Your task to perform on an android device: add a label to a message in the gmail app Image 0: 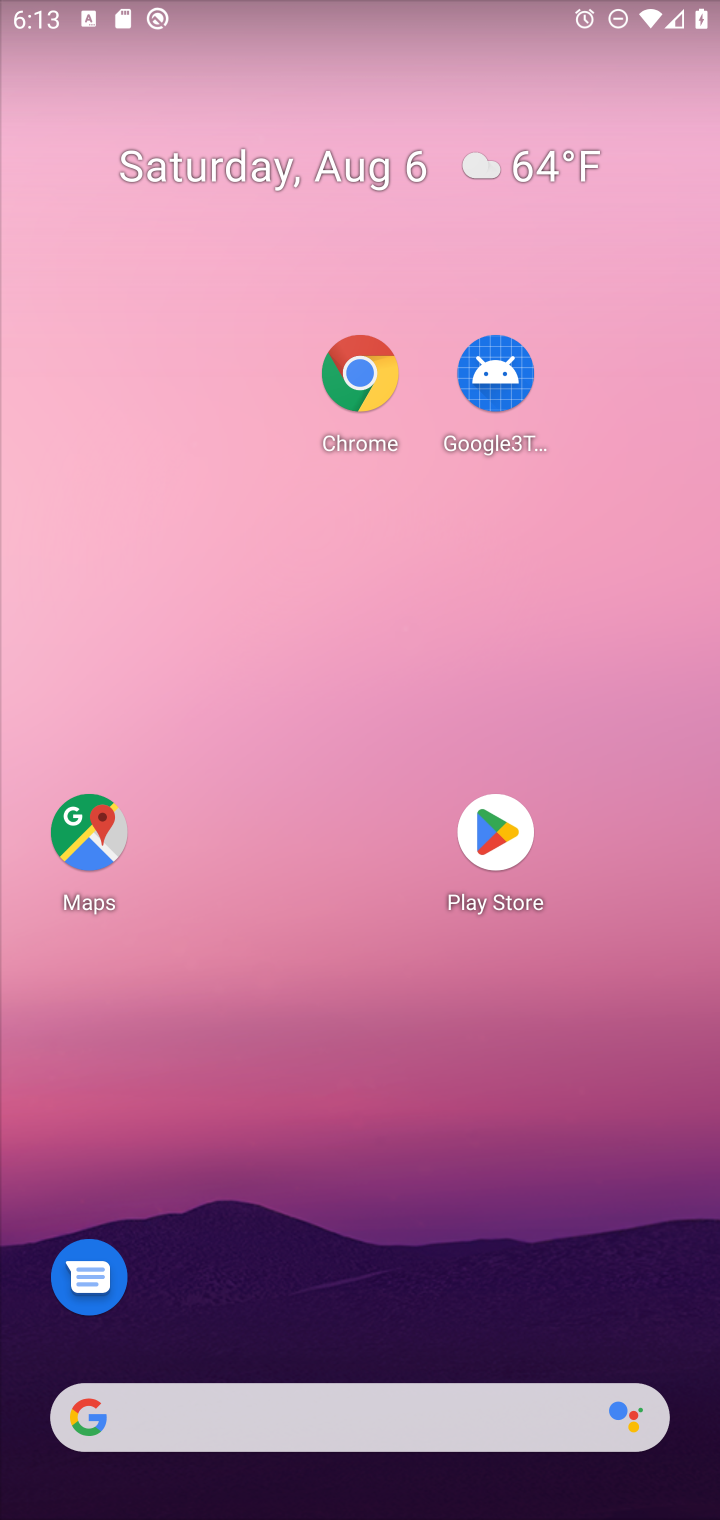
Step 0: drag from (340, 1422) to (102, 46)
Your task to perform on an android device: add a label to a message in the gmail app Image 1: 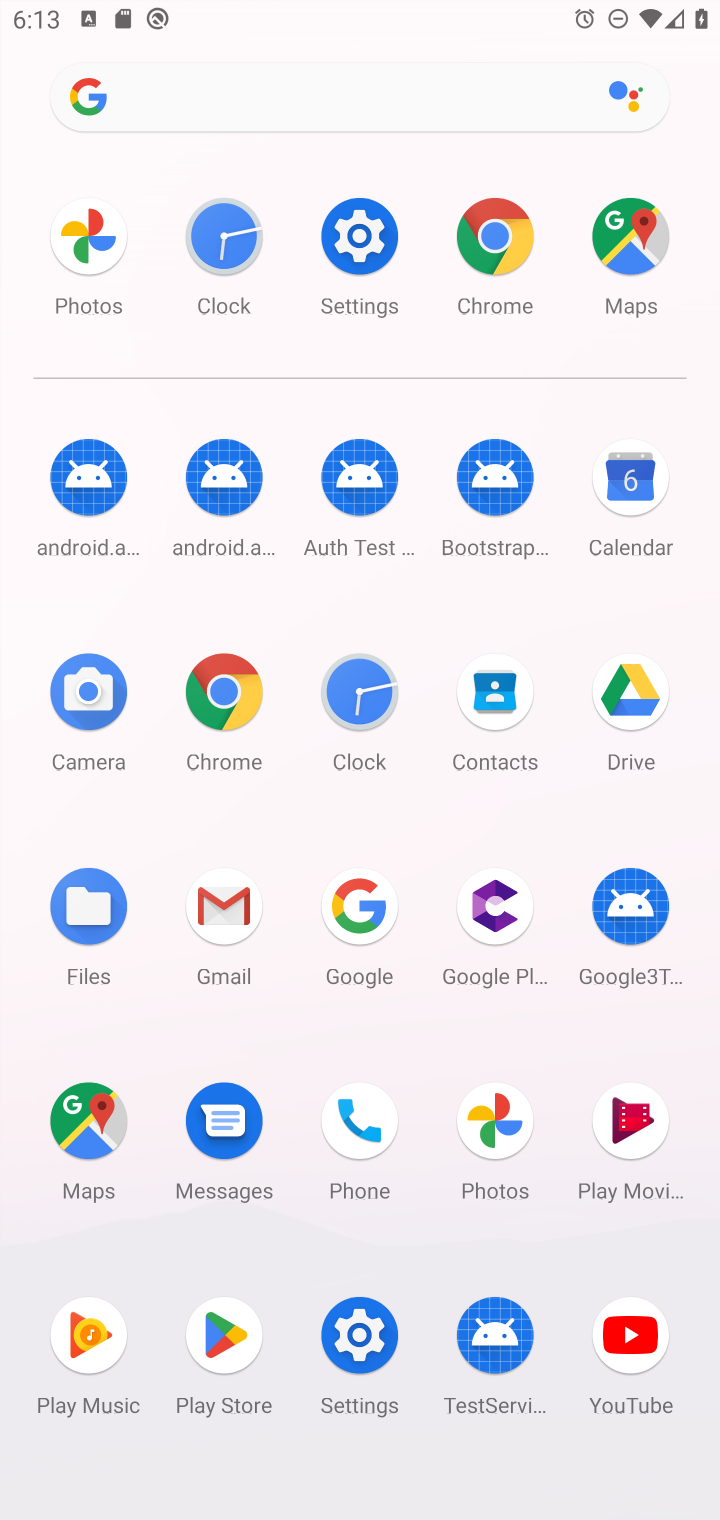
Step 1: click (224, 909)
Your task to perform on an android device: add a label to a message in the gmail app Image 2: 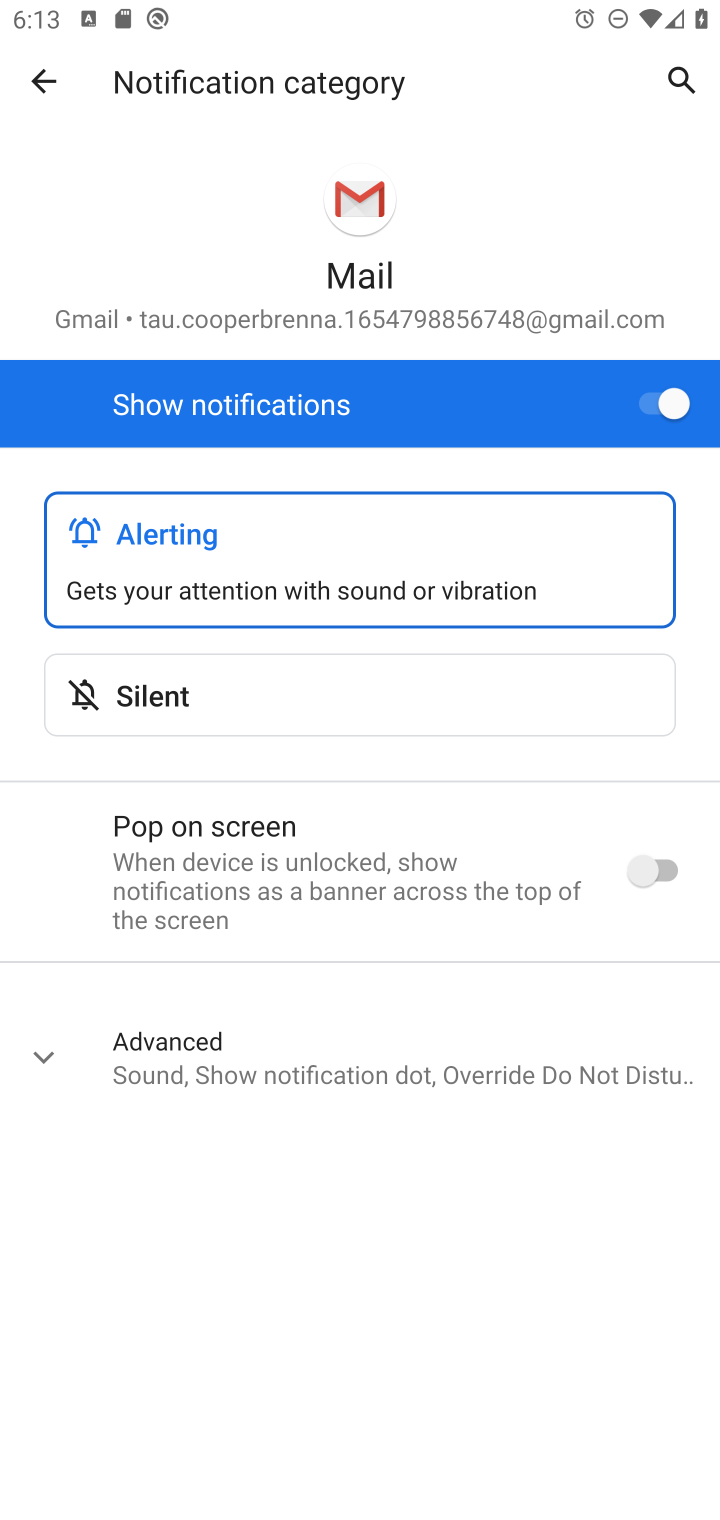
Step 2: press back button
Your task to perform on an android device: add a label to a message in the gmail app Image 3: 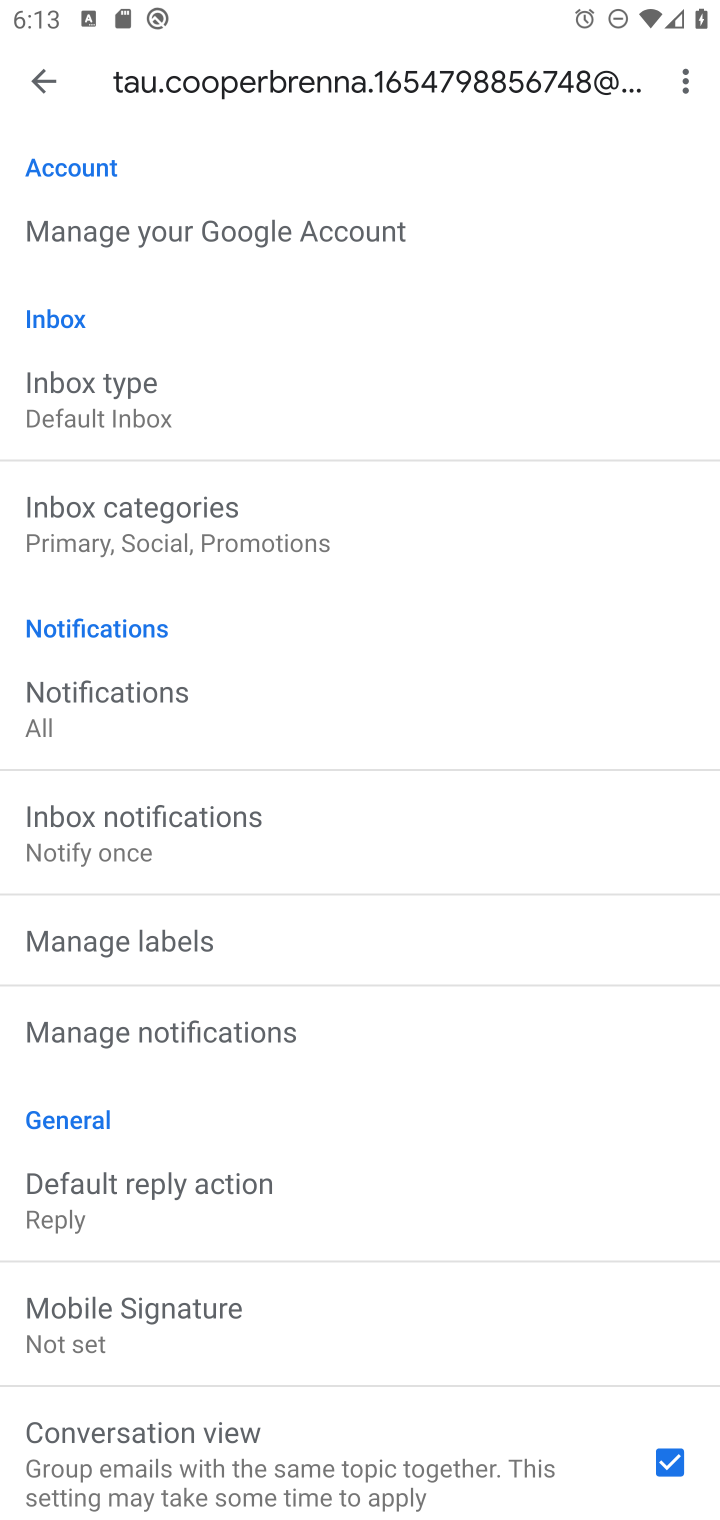
Step 3: press back button
Your task to perform on an android device: add a label to a message in the gmail app Image 4: 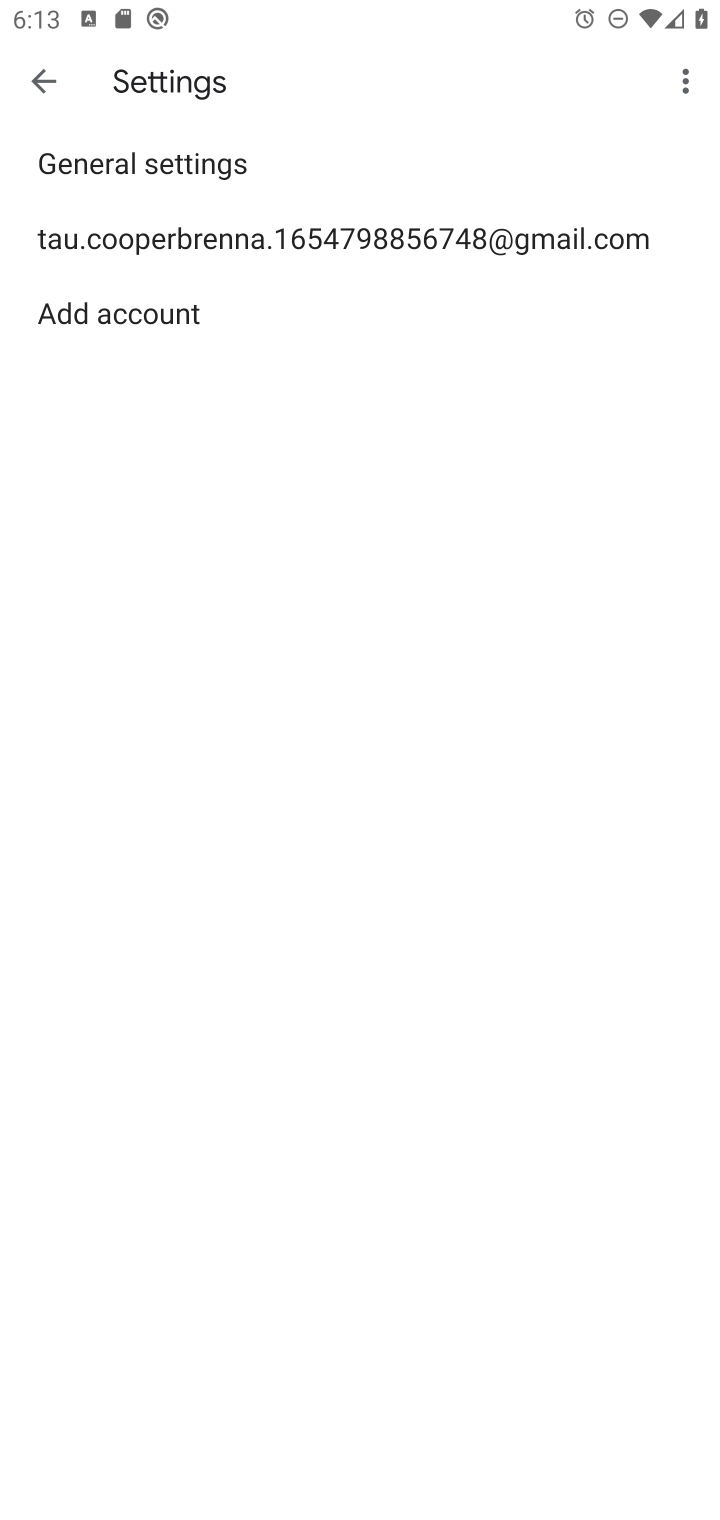
Step 4: press back button
Your task to perform on an android device: add a label to a message in the gmail app Image 5: 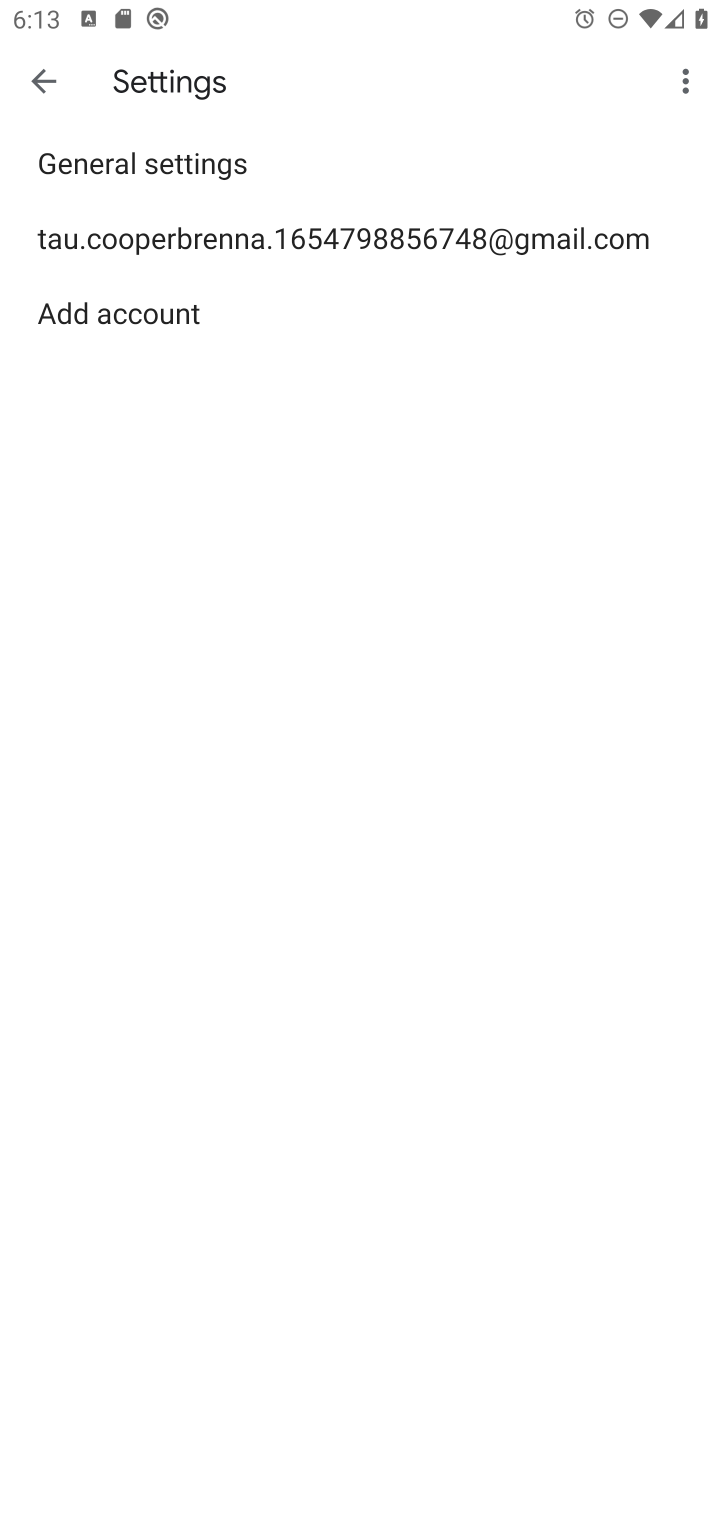
Step 5: press back button
Your task to perform on an android device: add a label to a message in the gmail app Image 6: 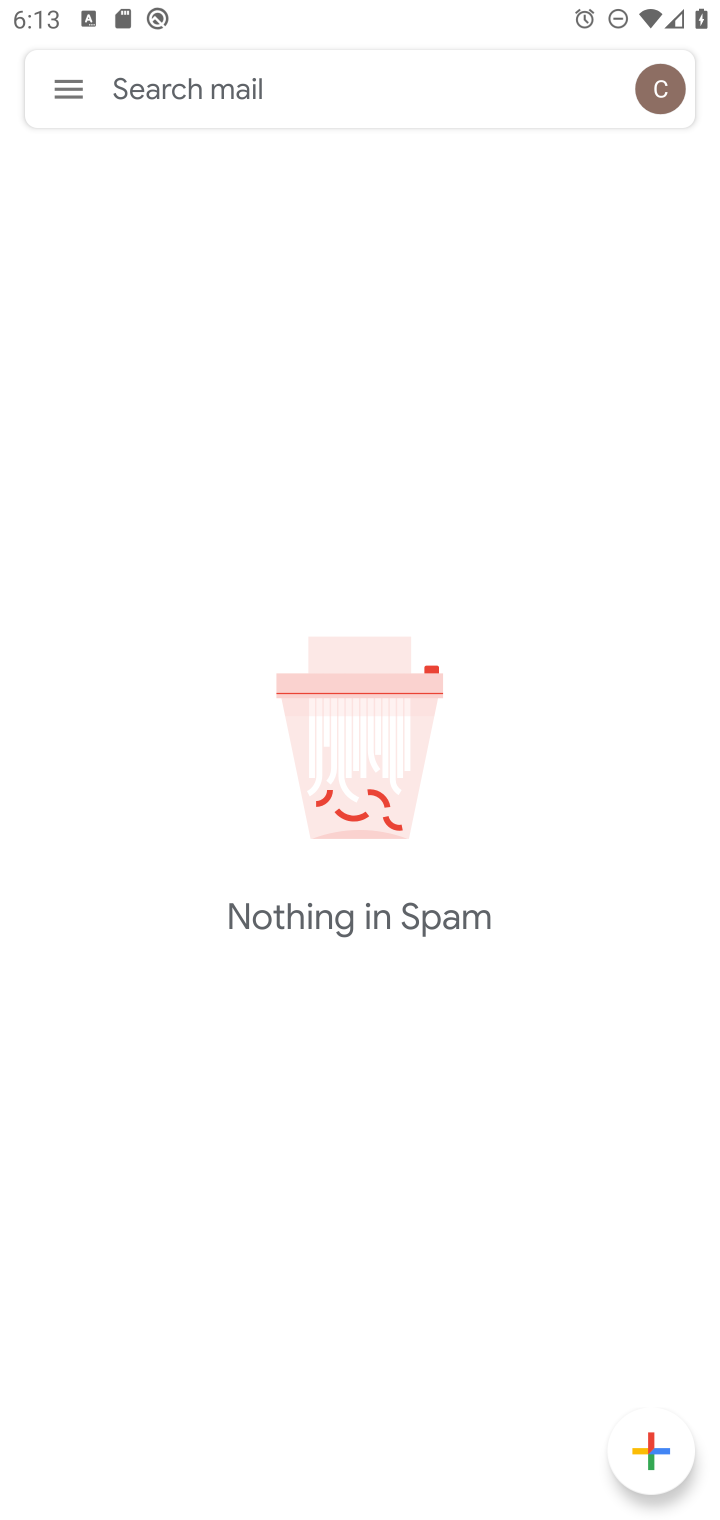
Step 6: click (57, 102)
Your task to perform on an android device: add a label to a message in the gmail app Image 7: 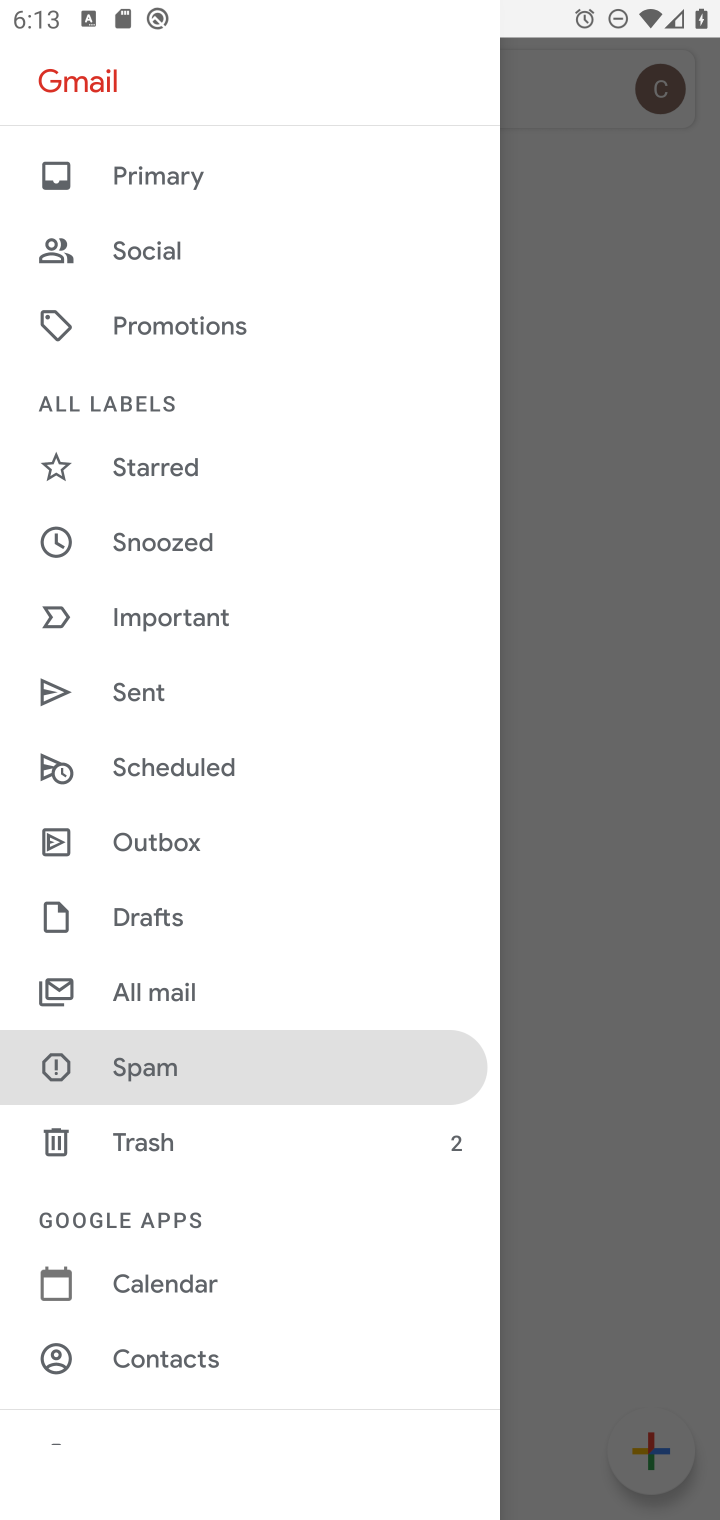
Step 7: drag from (285, 342) to (273, 709)
Your task to perform on an android device: add a label to a message in the gmail app Image 8: 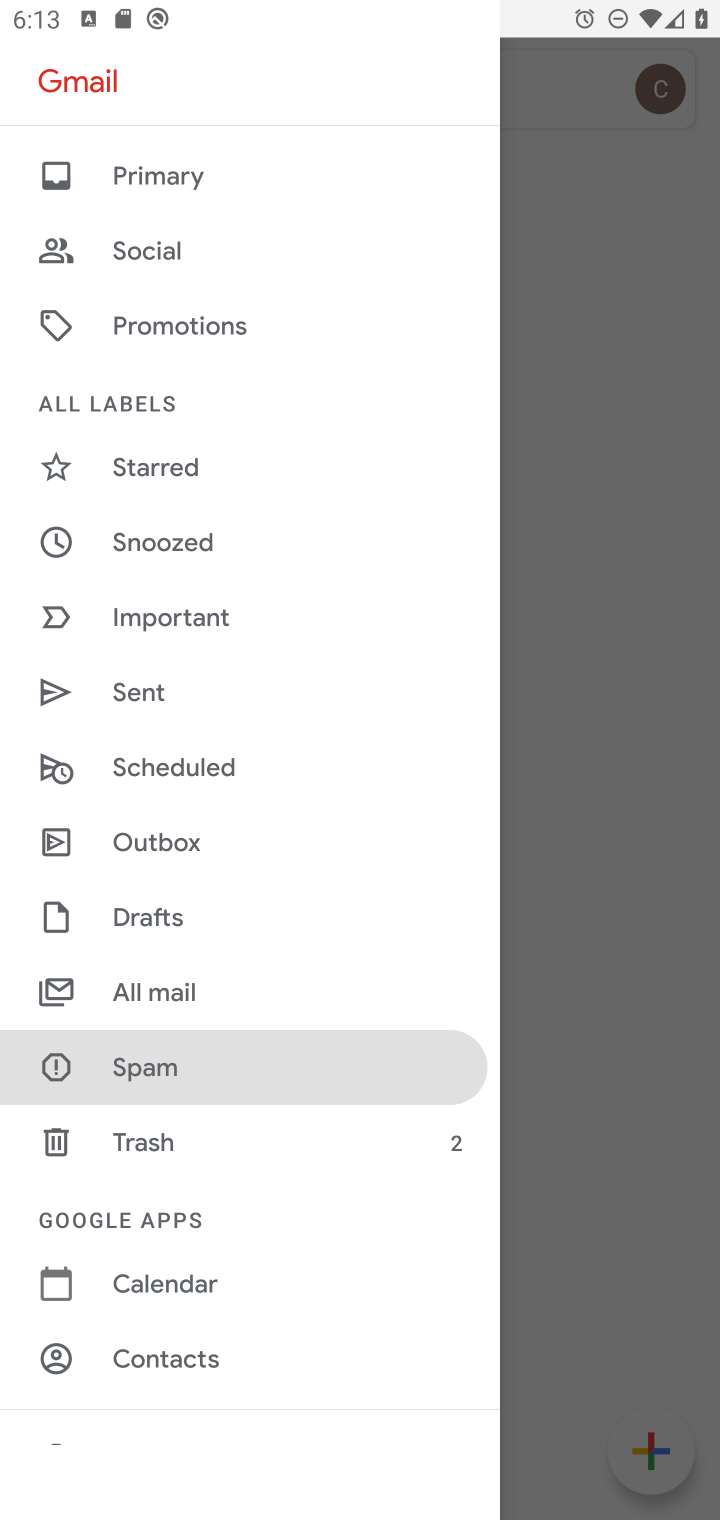
Step 8: click (196, 169)
Your task to perform on an android device: add a label to a message in the gmail app Image 9: 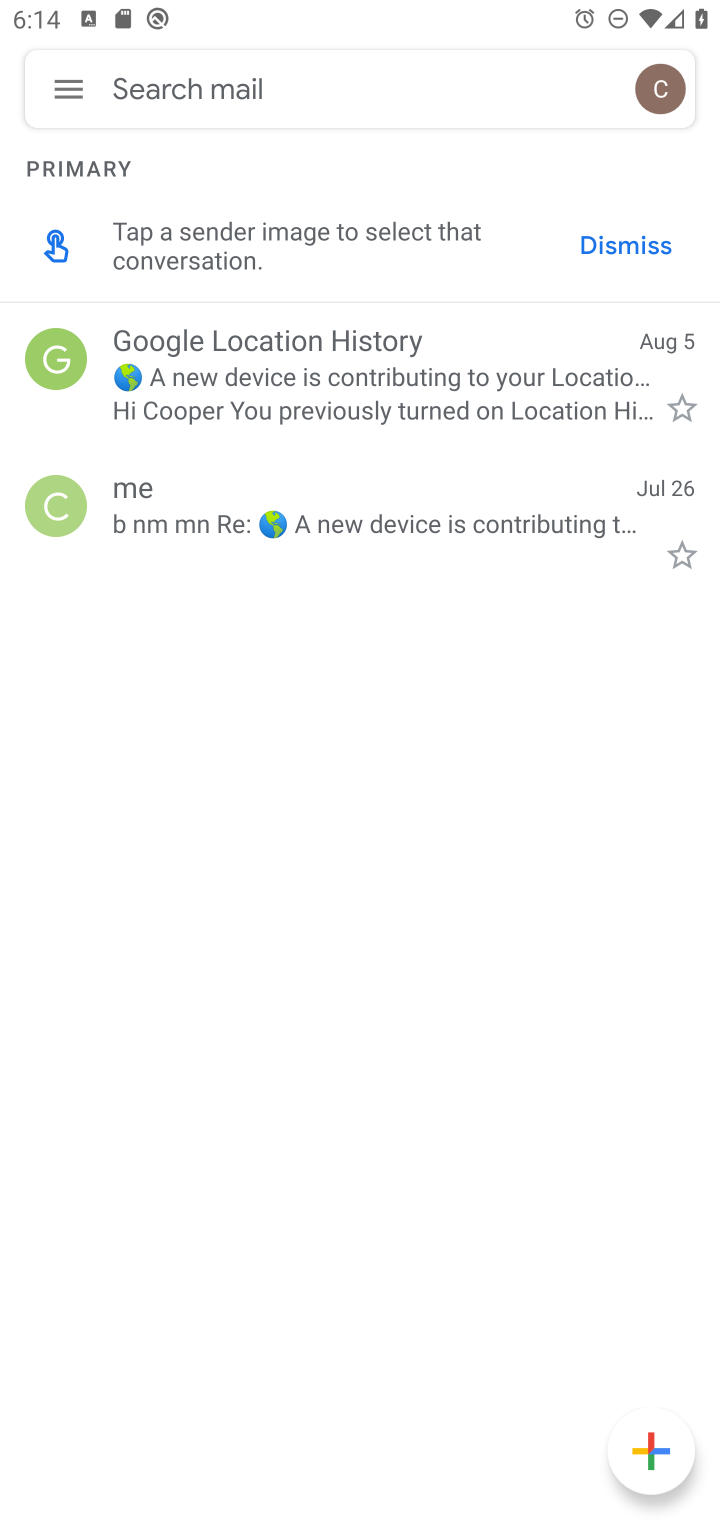
Step 9: click (236, 364)
Your task to perform on an android device: add a label to a message in the gmail app Image 10: 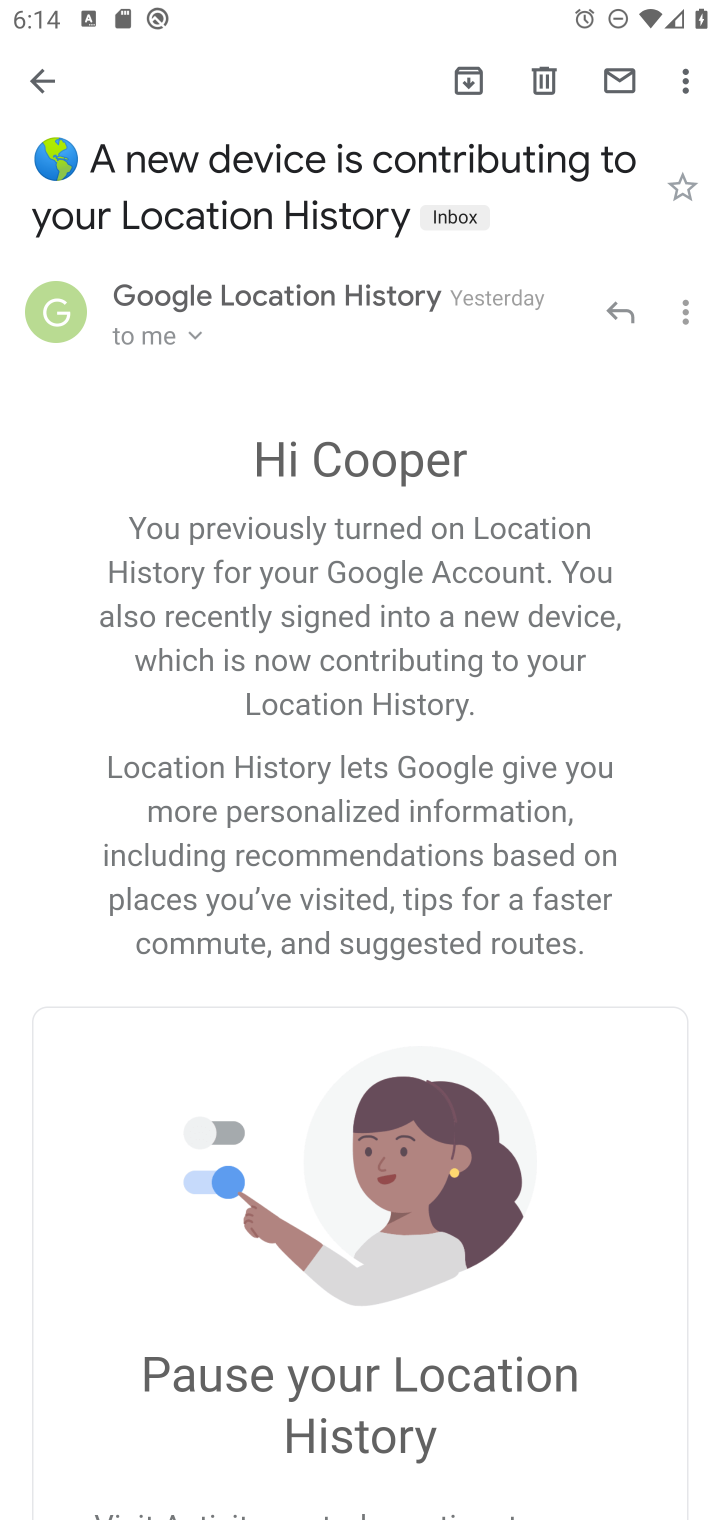
Step 10: click (685, 81)
Your task to perform on an android device: add a label to a message in the gmail app Image 11: 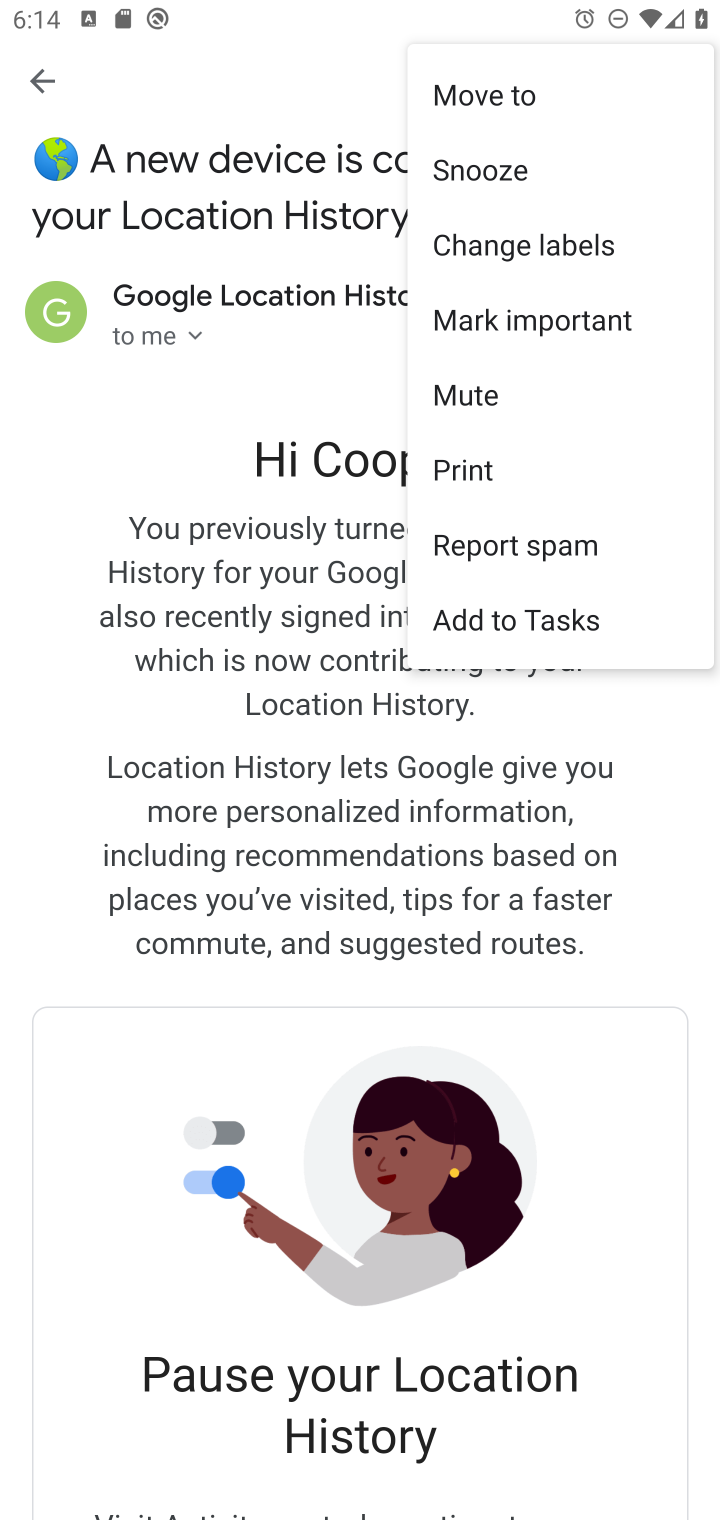
Step 11: click (521, 254)
Your task to perform on an android device: add a label to a message in the gmail app Image 12: 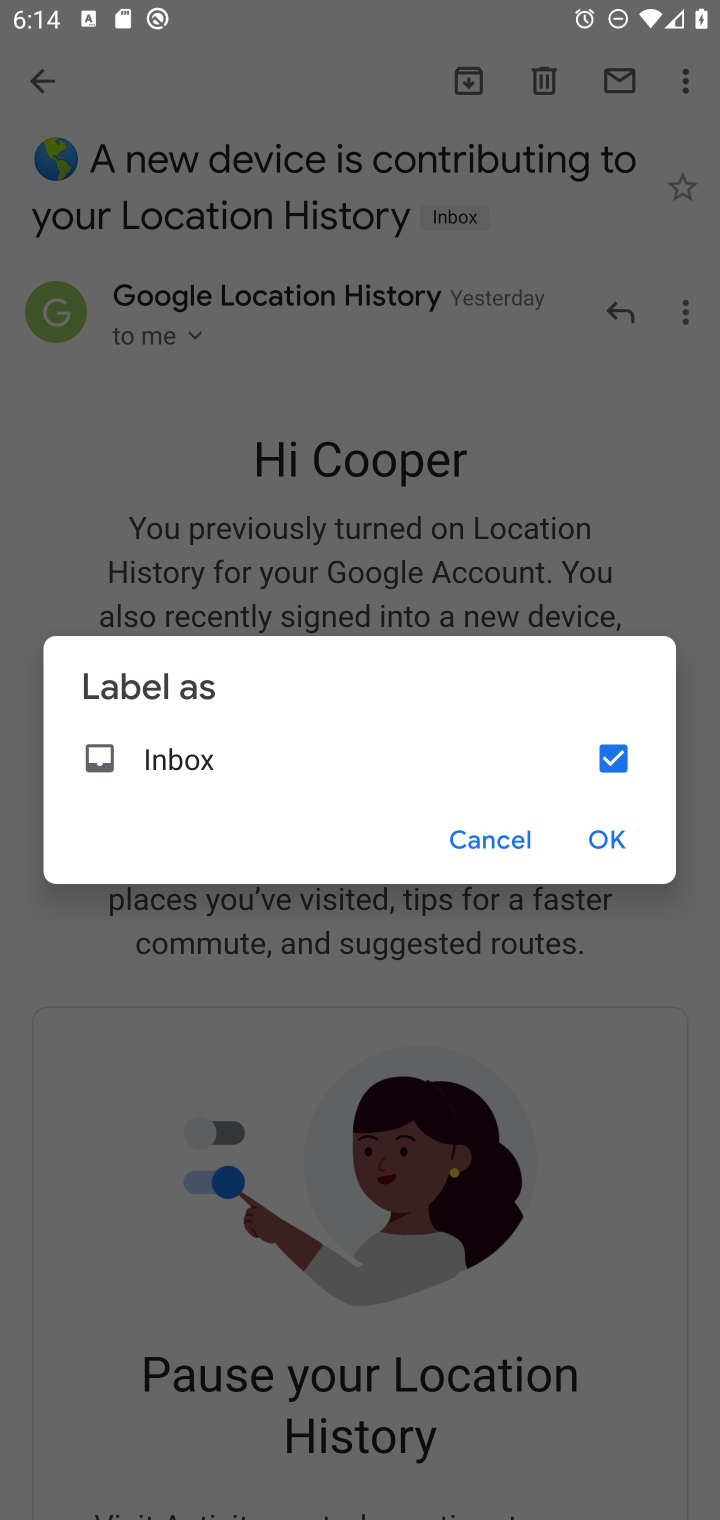
Step 12: click (595, 829)
Your task to perform on an android device: add a label to a message in the gmail app Image 13: 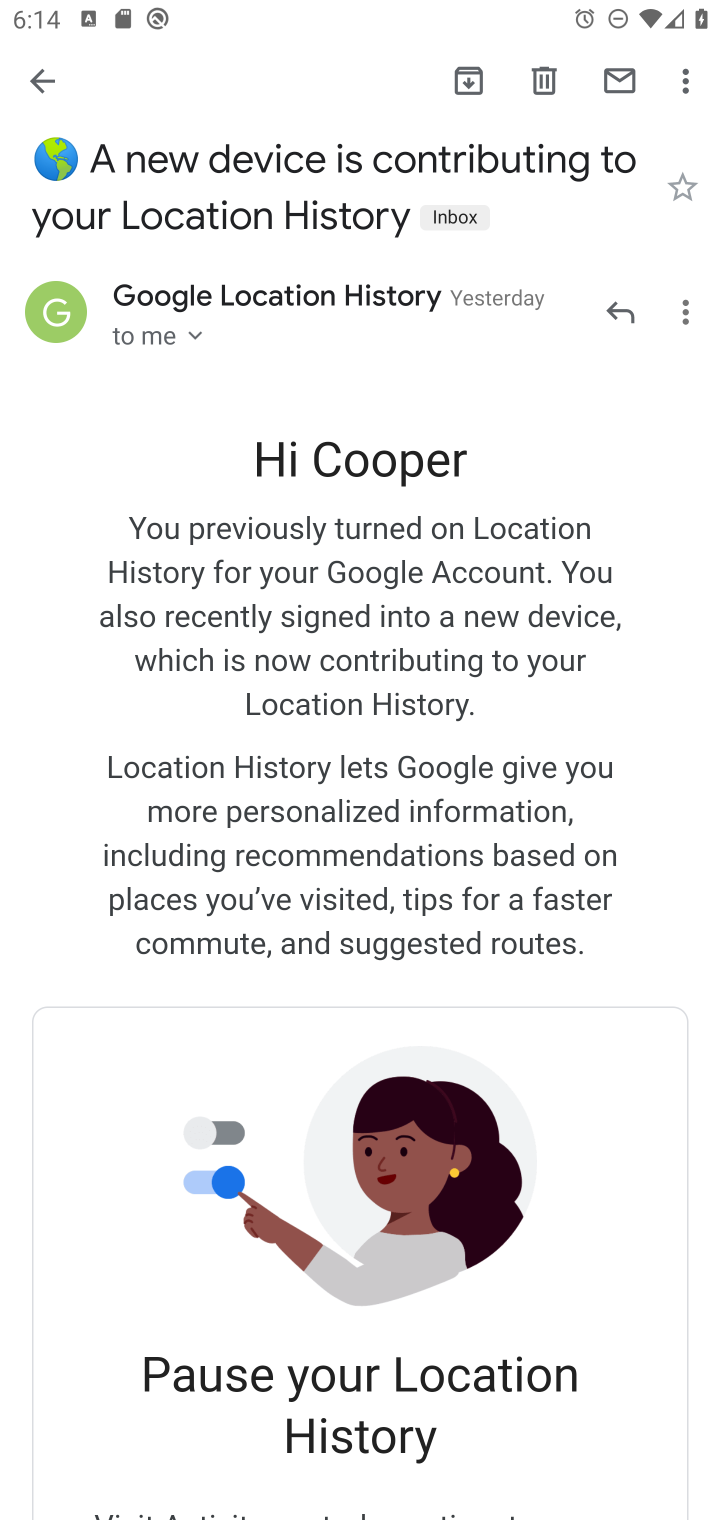
Step 13: task complete